Your task to perform on an android device: show emergency info Image 0: 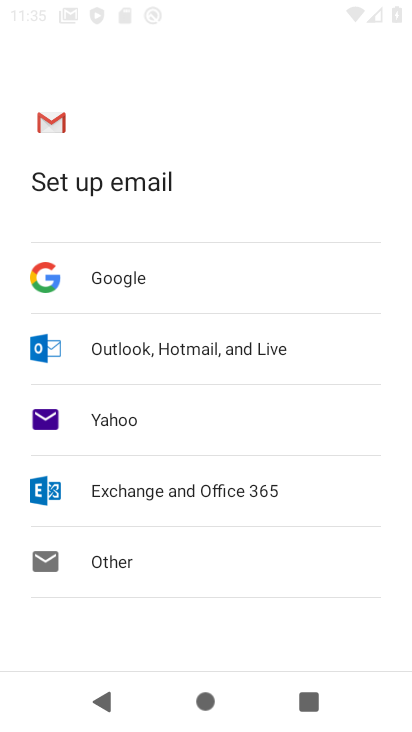
Step 0: click (145, 95)
Your task to perform on an android device: show emergency info Image 1: 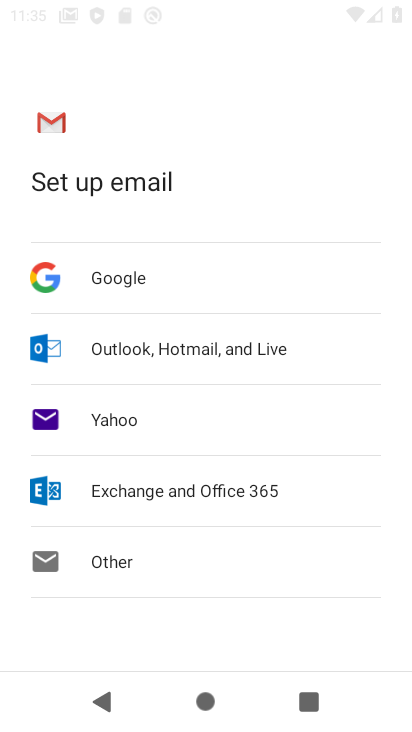
Step 1: press home button
Your task to perform on an android device: show emergency info Image 2: 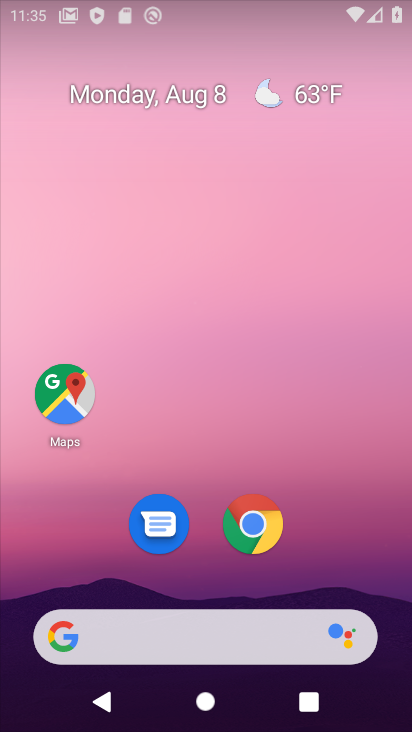
Step 2: click (209, 144)
Your task to perform on an android device: show emergency info Image 3: 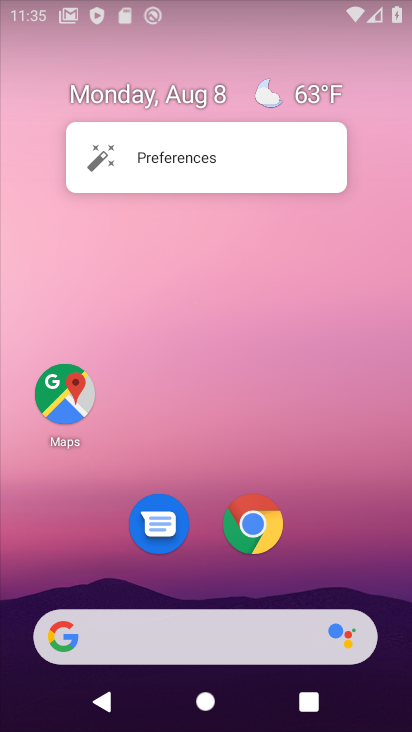
Step 3: drag from (200, 567) to (205, 98)
Your task to perform on an android device: show emergency info Image 4: 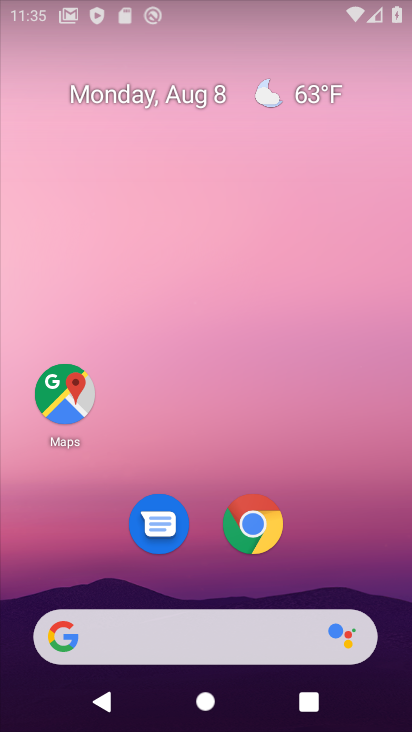
Step 4: drag from (223, 585) to (230, 183)
Your task to perform on an android device: show emergency info Image 5: 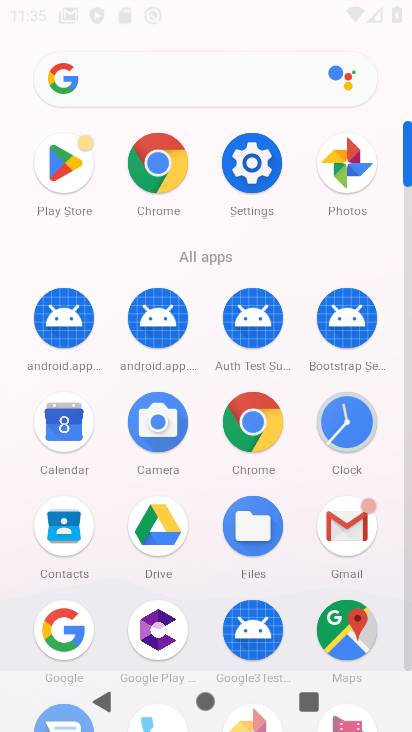
Step 5: click (234, 178)
Your task to perform on an android device: show emergency info Image 6: 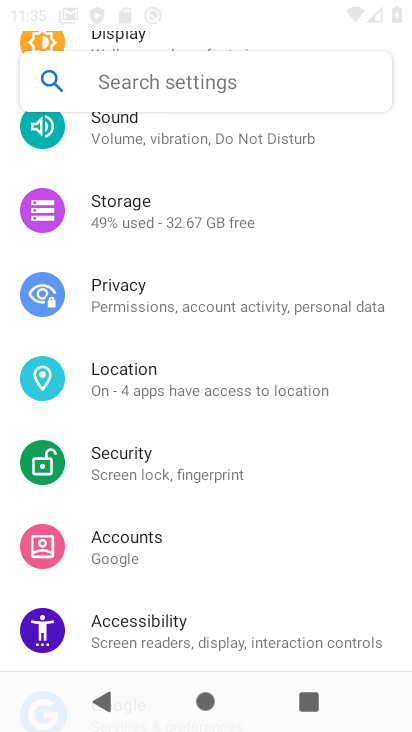
Step 6: drag from (158, 399) to (167, 77)
Your task to perform on an android device: show emergency info Image 7: 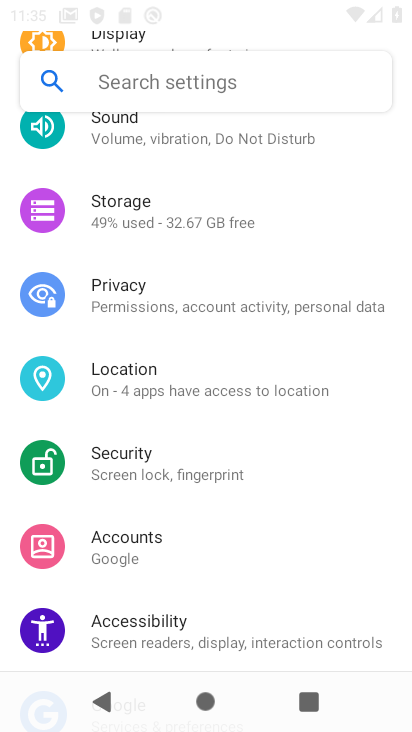
Step 7: drag from (152, 567) to (153, 227)
Your task to perform on an android device: show emergency info Image 8: 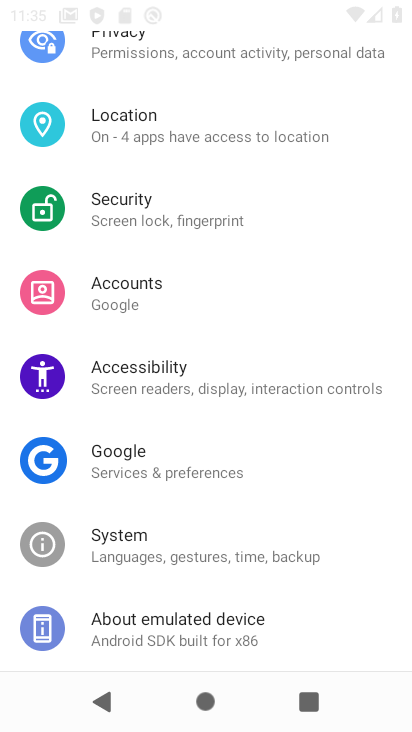
Step 8: click (126, 626)
Your task to perform on an android device: show emergency info Image 9: 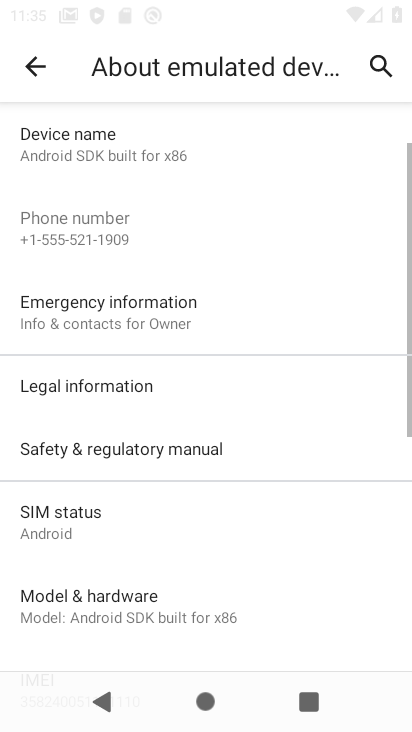
Step 9: click (128, 339)
Your task to perform on an android device: show emergency info Image 10: 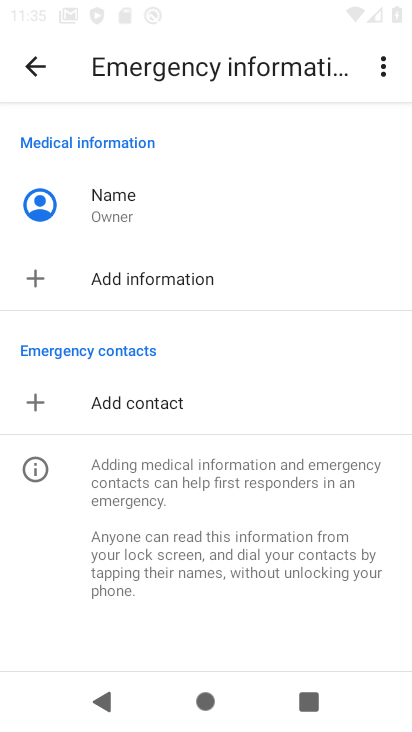
Step 10: task complete